Your task to perform on an android device: turn on location history Image 0: 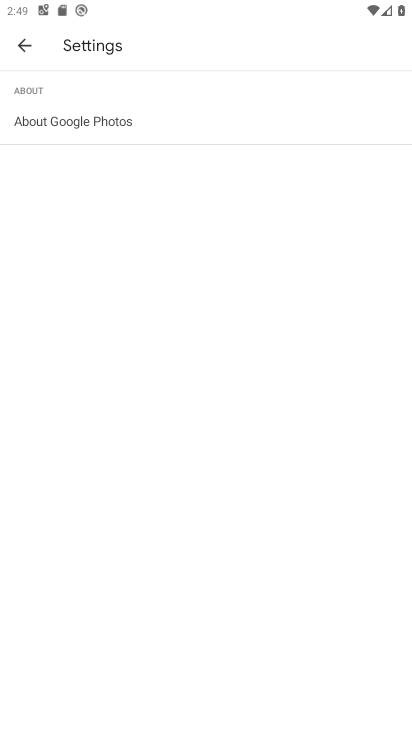
Step 0: press home button
Your task to perform on an android device: turn on location history Image 1: 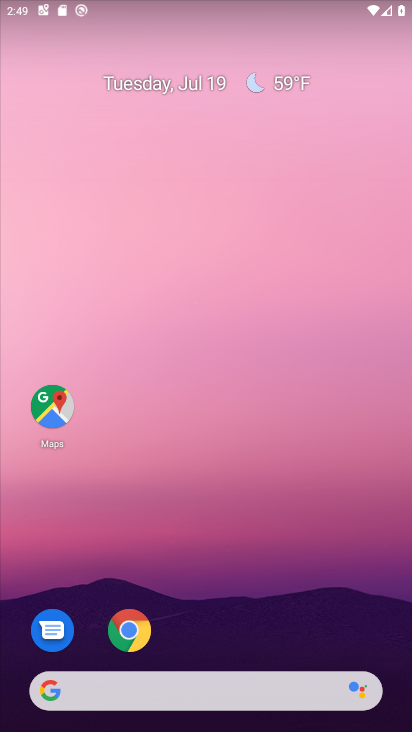
Step 1: click (53, 409)
Your task to perform on an android device: turn on location history Image 2: 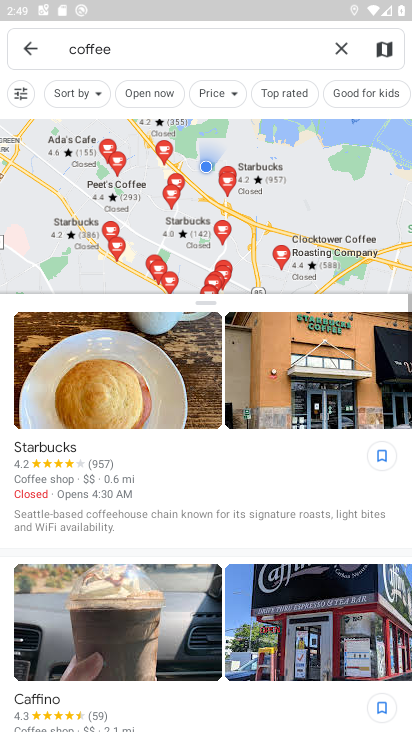
Step 2: click (341, 45)
Your task to perform on an android device: turn on location history Image 3: 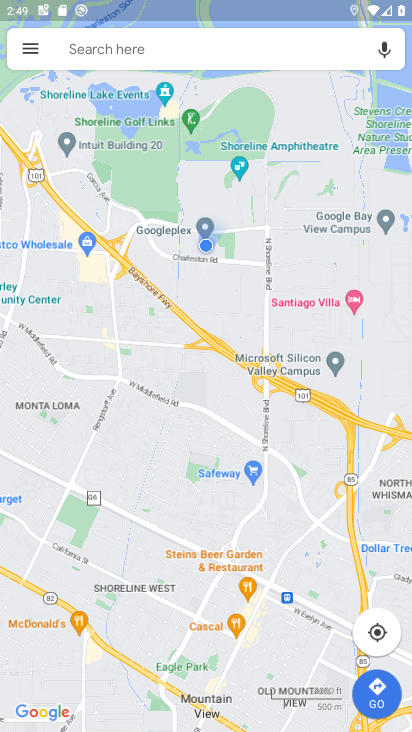
Step 3: click (31, 45)
Your task to perform on an android device: turn on location history Image 4: 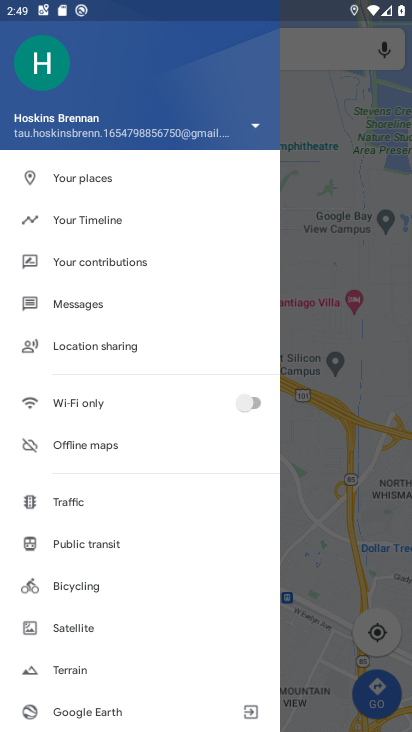
Step 4: click (80, 217)
Your task to perform on an android device: turn on location history Image 5: 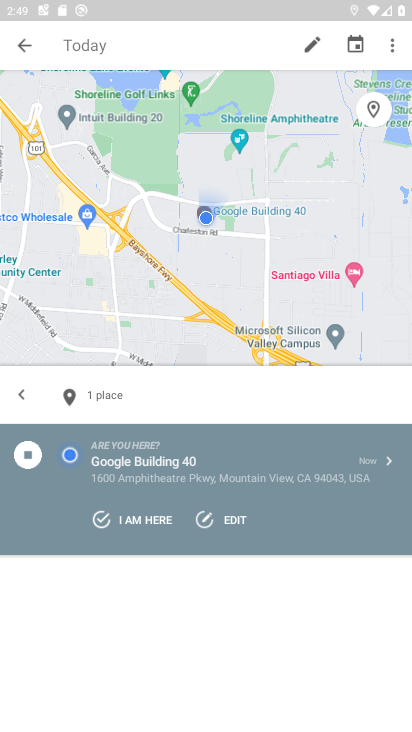
Step 5: click (394, 46)
Your task to perform on an android device: turn on location history Image 6: 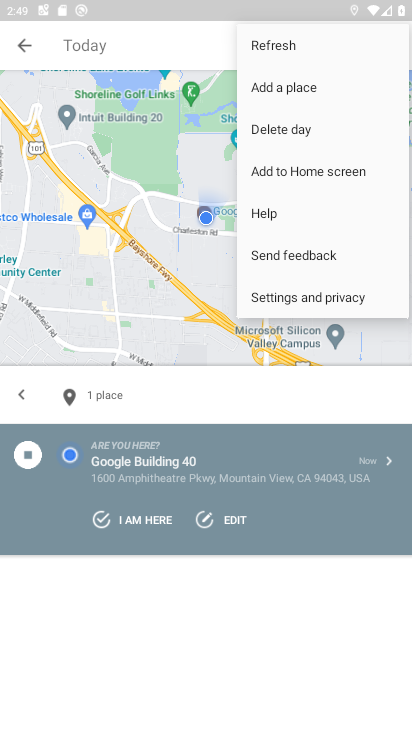
Step 6: click (336, 295)
Your task to perform on an android device: turn on location history Image 7: 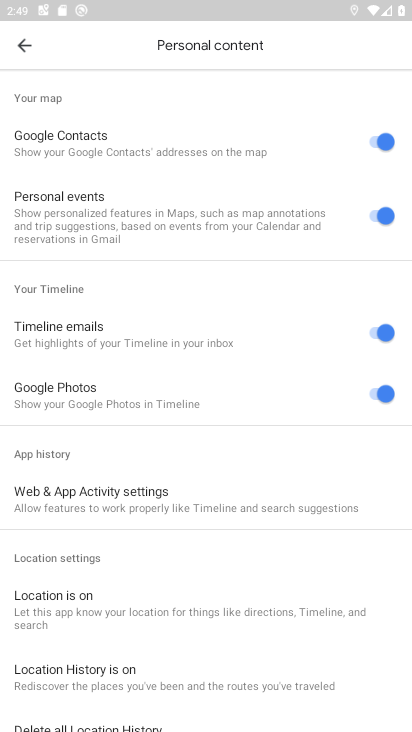
Step 7: click (62, 667)
Your task to perform on an android device: turn on location history Image 8: 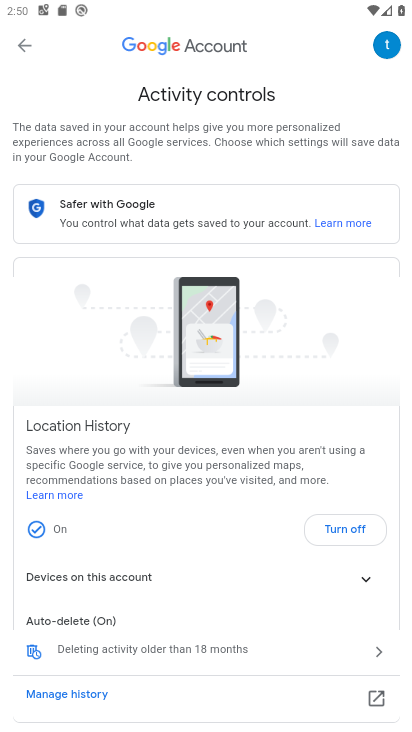
Step 8: task complete